Your task to perform on an android device: create a new album in the google photos Image 0: 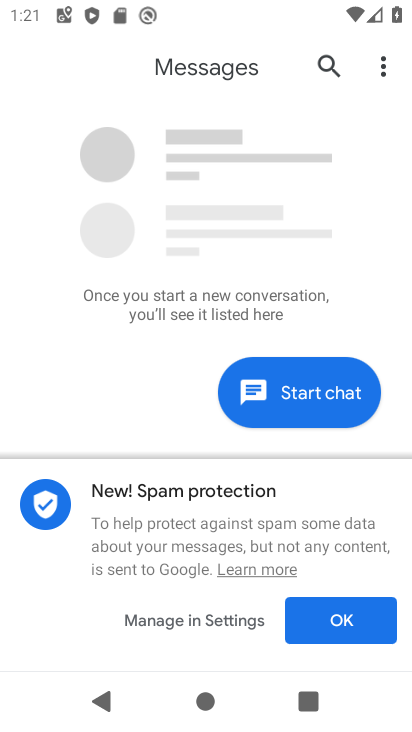
Step 0: press home button
Your task to perform on an android device: create a new album in the google photos Image 1: 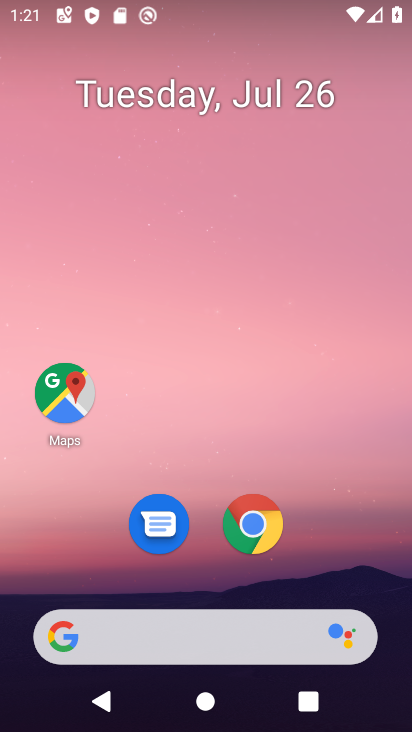
Step 1: drag from (320, 559) to (354, 29)
Your task to perform on an android device: create a new album in the google photos Image 2: 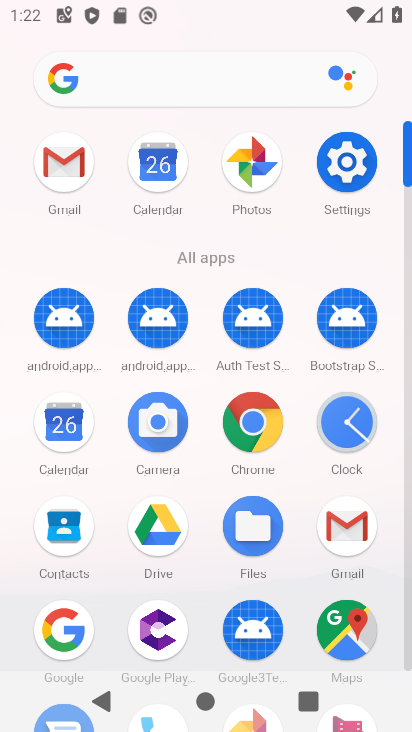
Step 2: click (241, 161)
Your task to perform on an android device: create a new album in the google photos Image 3: 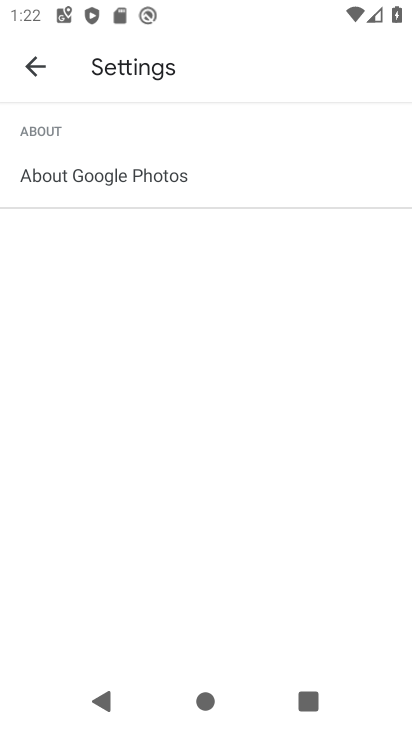
Step 3: click (36, 64)
Your task to perform on an android device: create a new album in the google photos Image 4: 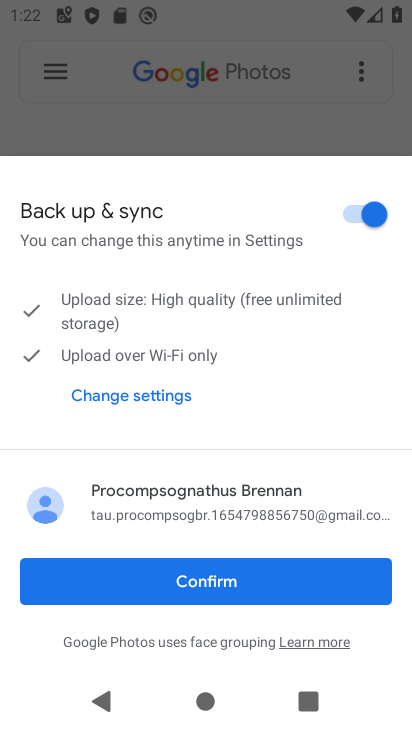
Step 4: click (177, 576)
Your task to perform on an android device: create a new album in the google photos Image 5: 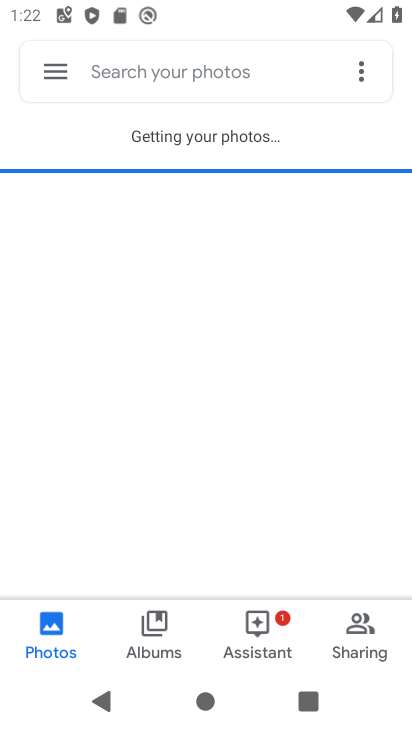
Step 5: click (163, 633)
Your task to perform on an android device: create a new album in the google photos Image 6: 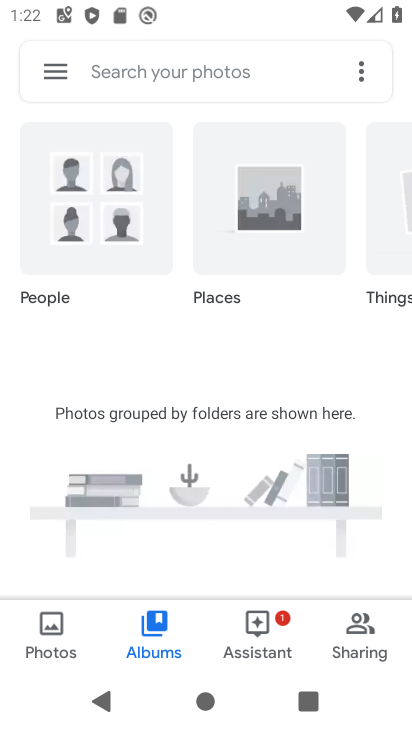
Step 6: click (355, 74)
Your task to perform on an android device: create a new album in the google photos Image 7: 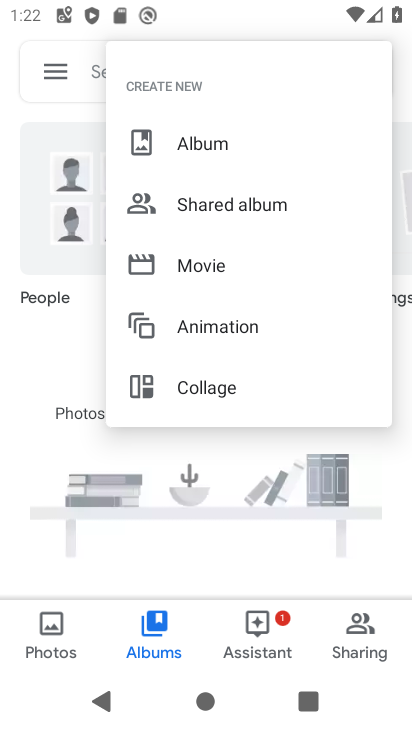
Step 7: click (232, 139)
Your task to perform on an android device: create a new album in the google photos Image 8: 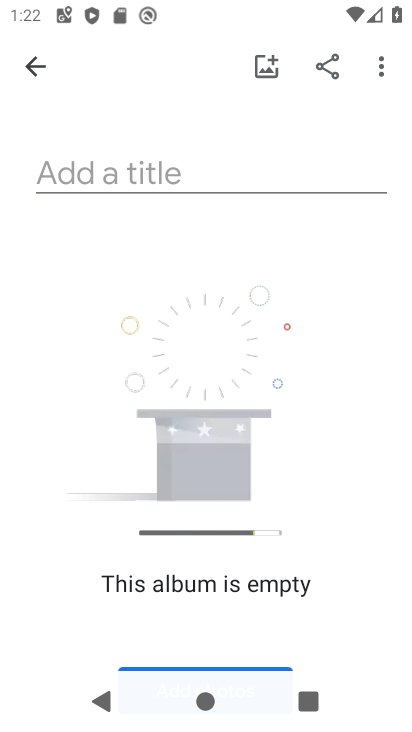
Step 8: click (232, 173)
Your task to perform on an android device: create a new album in the google photos Image 9: 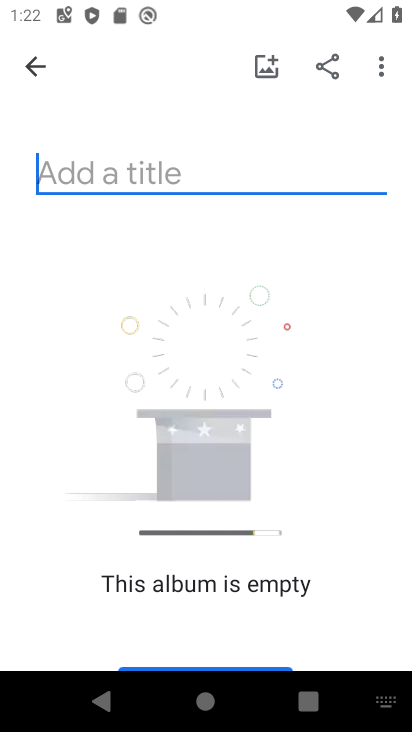
Step 9: type "Hastinapur"
Your task to perform on an android device: create a new album in the google photos Image 10: 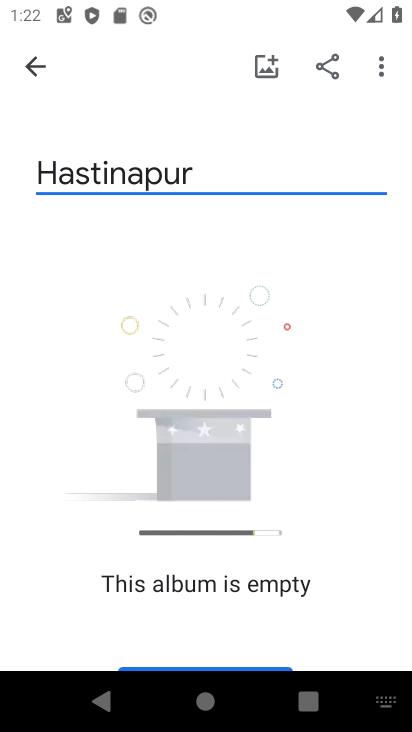
Step 10: drag from (237, 566) to (275, 323)
Your task to perform on an android device: create a new album in the google photos Image 11: 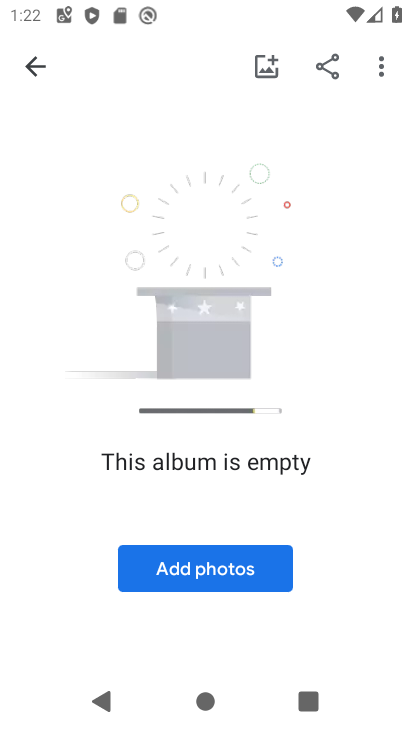
Step 11: click (256, 576)
Your task to perform on an android device: create a new album in the google photos Image 12: 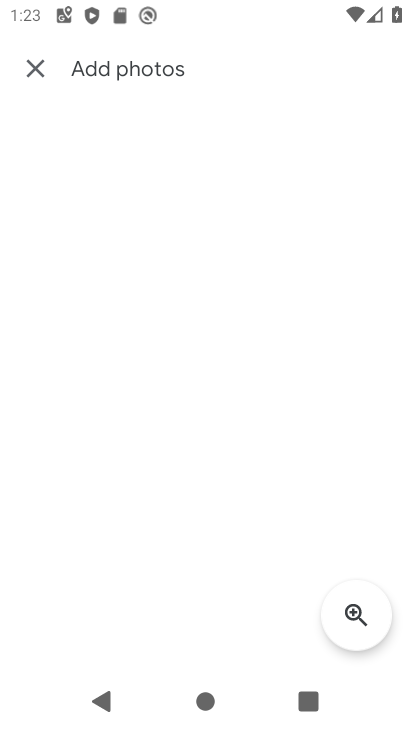
Step 12: task complete